Your task to perform on an android device: Open Reddit.com Image 0: 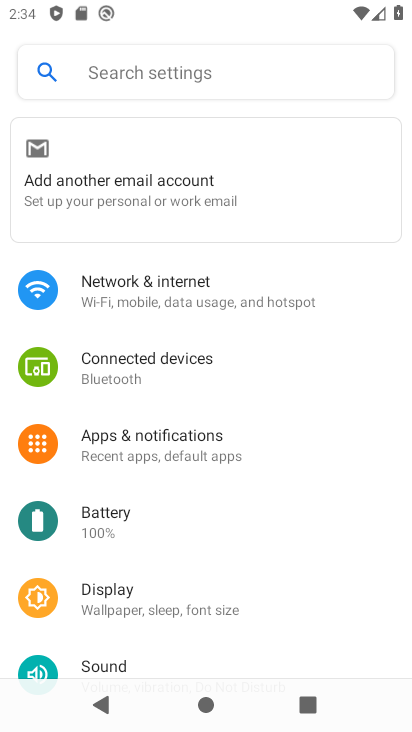
Step 0: press home button
Your task to perform on an android device: Open Reddit.com Image 1: 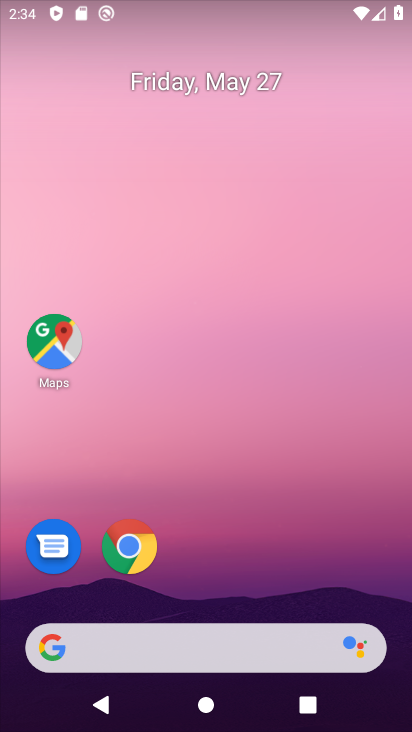
Step 1: click (113, 547)
Your task to perform on an android device: Open Reddit.com Image 2: 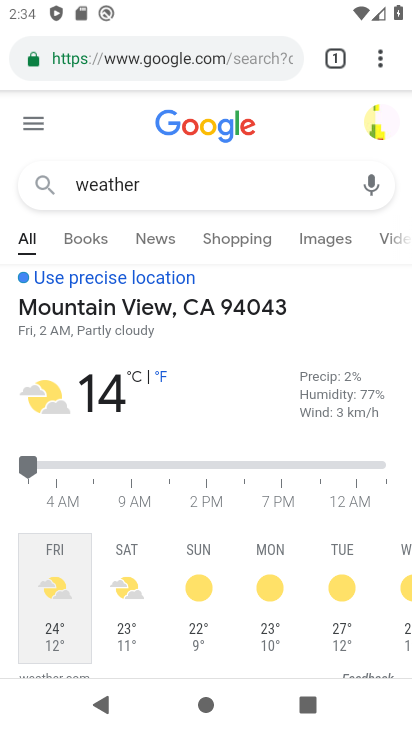
Step 2: click (126, 34)
Your task to perform on an android device: Open Reddit.com Image 3: 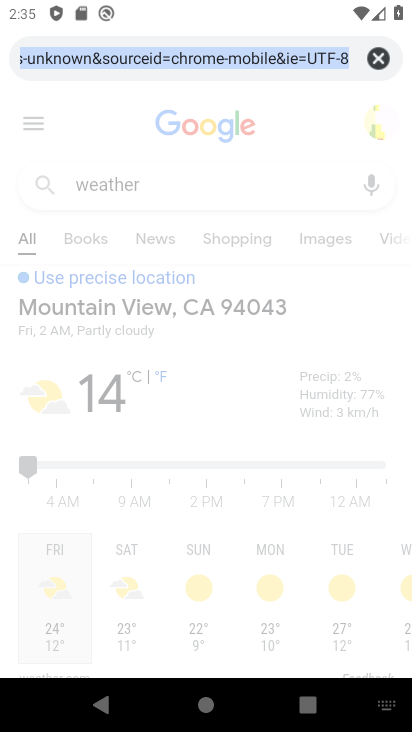
Step 3: type "Reddit.com"
Your task to perform on an android device: Open Reddit.com Image 4: 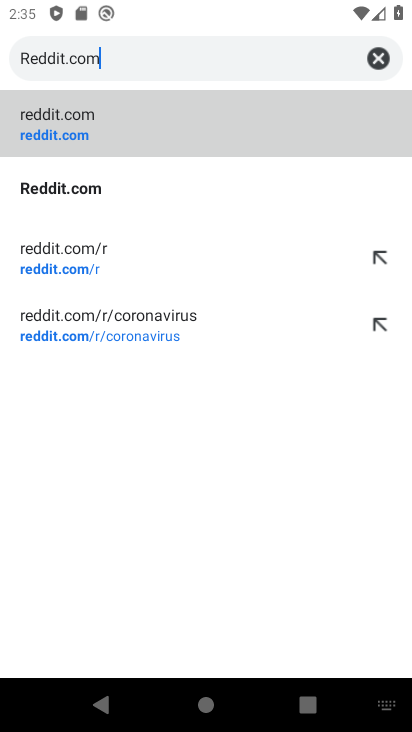
Step 4: click (120, 137)
Your task to perform on an android device: Open Reddit.com Image 5: 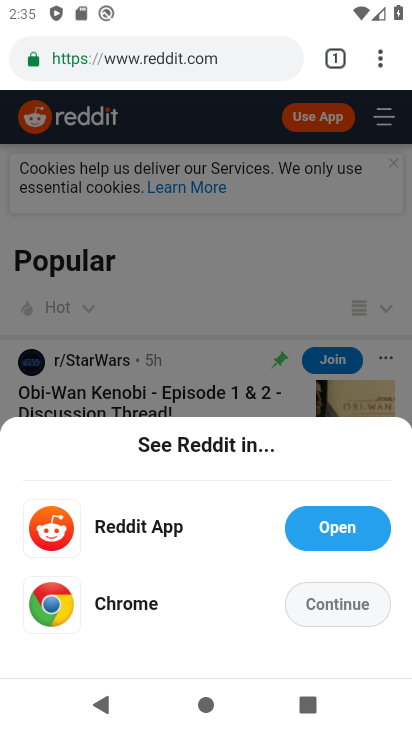
Step 5: task complete